Your task to perform on an android device: Show me the best basketball shoes on Nike.com Image 0: 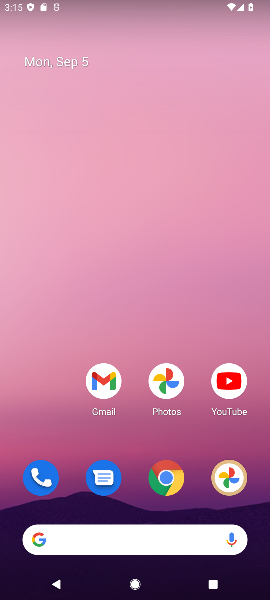
Step 0: drag from (186, 508) to (210, 120)
Your task to perform on an android device: Show me the best basketball shoes on Nike.com Image 1: 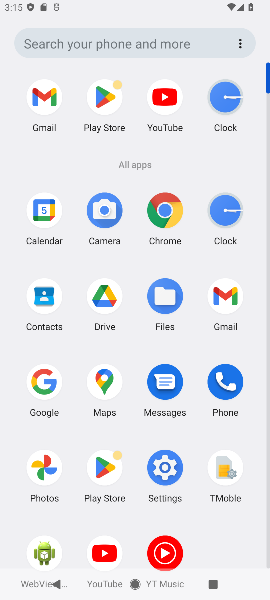
Step 1: click (173, 235)
Your task to perform on an android device: Show me the best basketball shoes on Nike.com Image 2: 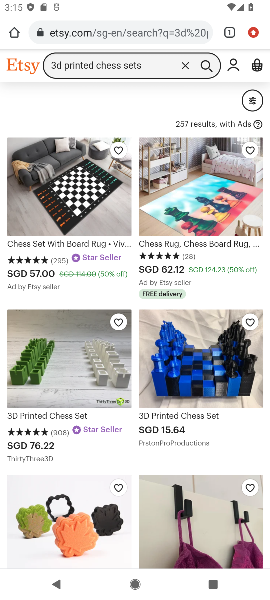
Step 2: click (155, 30)
Your task to perform on an android device: Show me the best basketball shoes on Nike.com Image 3: 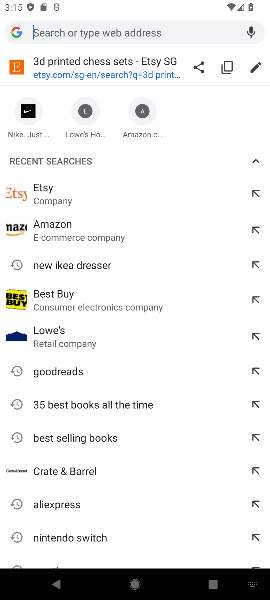
Step 3: type "Nike.com"
Your task to perform on an android device: Show me the best basketball shoes on Nike.com Image 4: 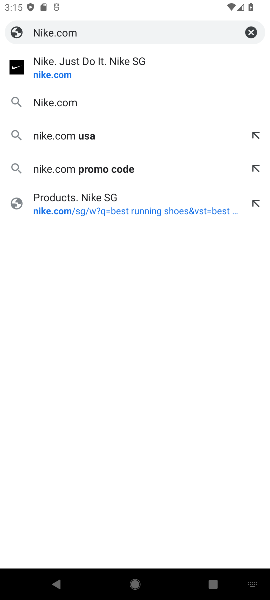
Step 4: click (139, 63)
Your task to perform on an android device: Show me the best basketball shoes on Nike.com Image 5: 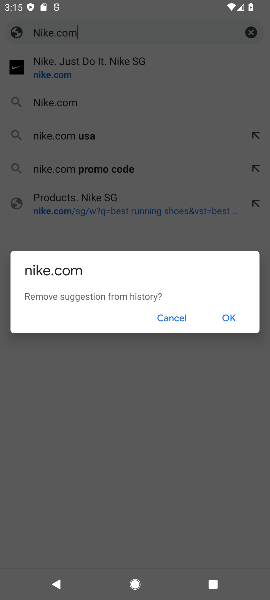
Step 5: click (187, 318)
Your task to perform on an android device: Show me the best basketball shoes on Nike.com Image 6: 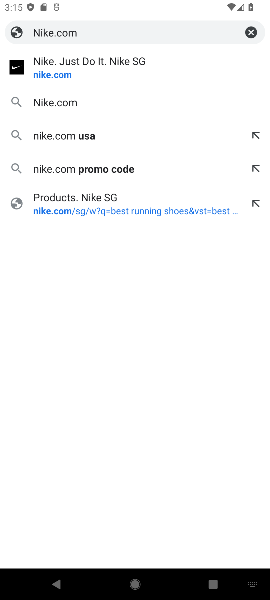
Step 6: click (20, 68)
Your task to perform on an android device: Show me the best basketball shoes on Nike.com Image 7: 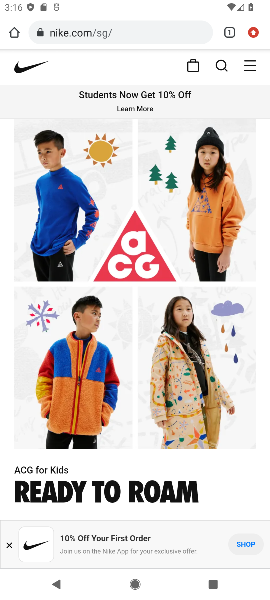
Step 7: click (218, 59)
Your task to perform on an android device: Show me the best basketball shoes on Nike.com Image 8: 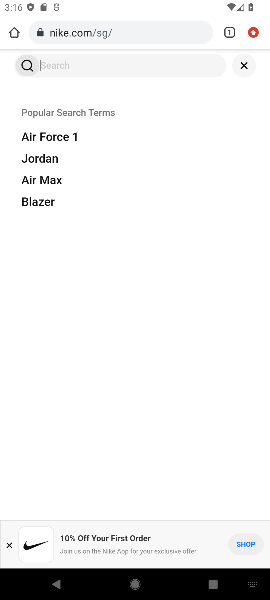
Step 8: type "best basketball shoes"
Your task to perform on an android device: Show me the best basketball shoes on Nike.com Image 9: 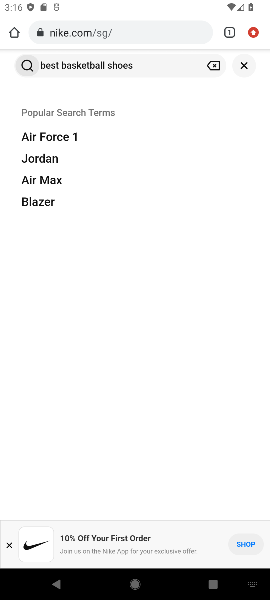
Step 9: click (30, 61)
Your task to perform on an android device: Show me the best basketball shoes on Nike.com Image 10: 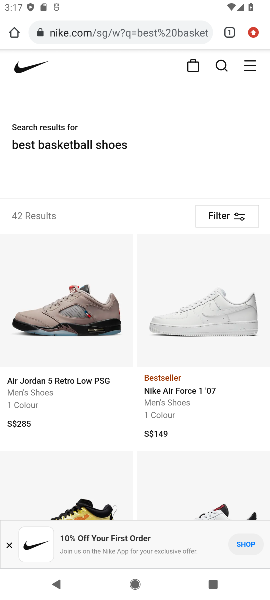
Step 10: task complete